Your task to perform on an android device: search for starred emails in the gmail app Image 0: 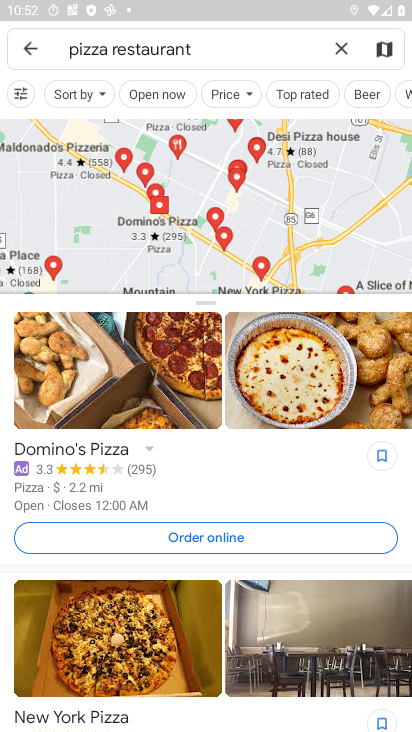
Step 0: press home button
Your task to perform on an android device: search for starred emails in the gmail app Image 1: 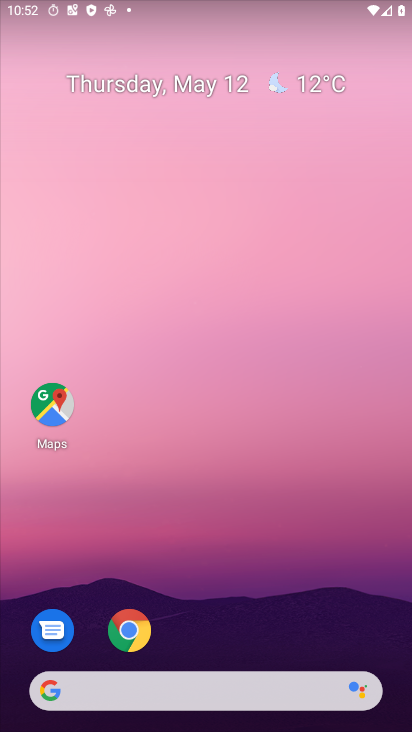
Step 1: drag from (204, 689) to (226, 190)
Your task to perform on an android device: search for starred emails in the gmail app Image 2: 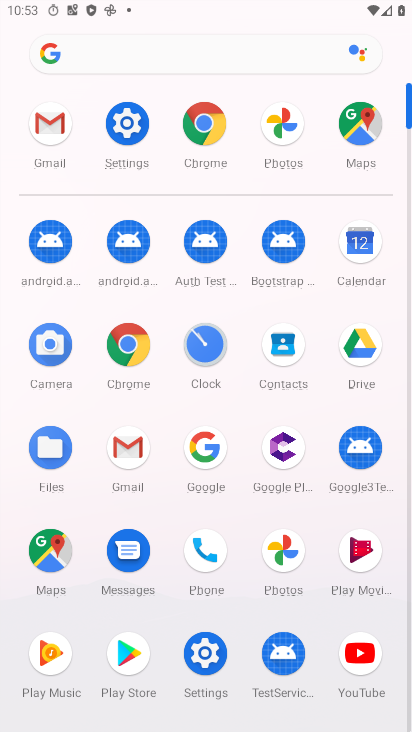
Step 2: click (125, 444)
Your task to perform on an android device: search for starred emails in the gmail app Image 3: 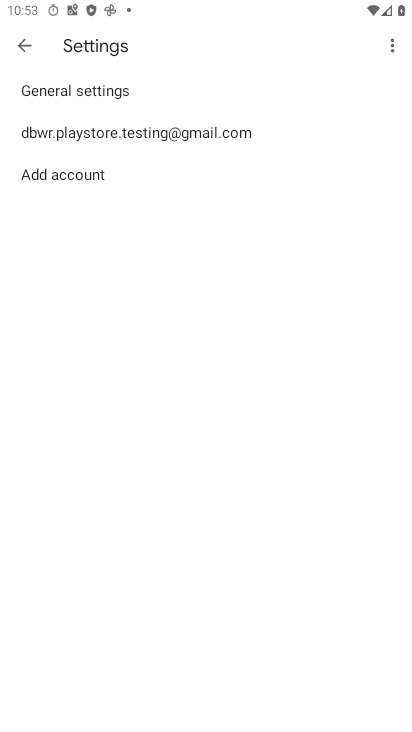
Step 3: click (30, 42)
Your task to perform on an android device: search for starred emails in the gmail app Image 4: 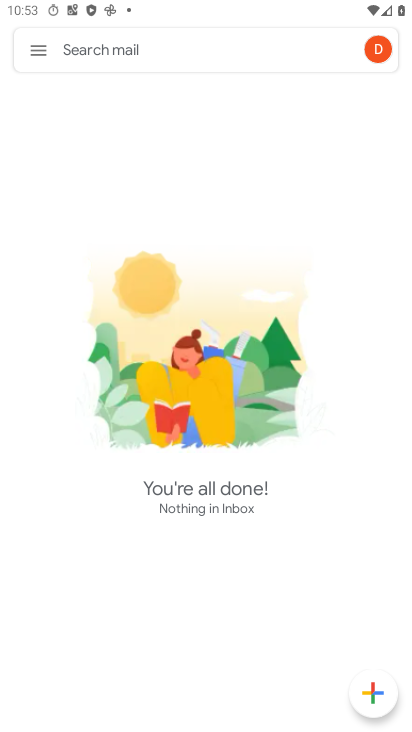
Step 4: click (35, 56)
Your task to perform on an android device: search for starred emails in the gmail app Image 5: 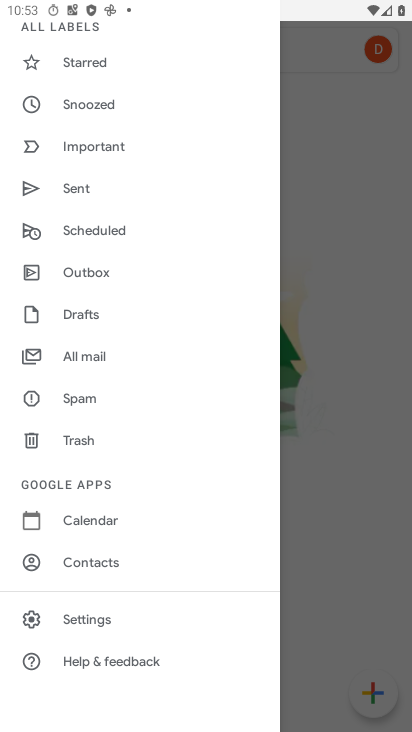
Step 5: click (90, 67)
Your task to perform on an android device: search for starred emails in the gmail app Image 6: 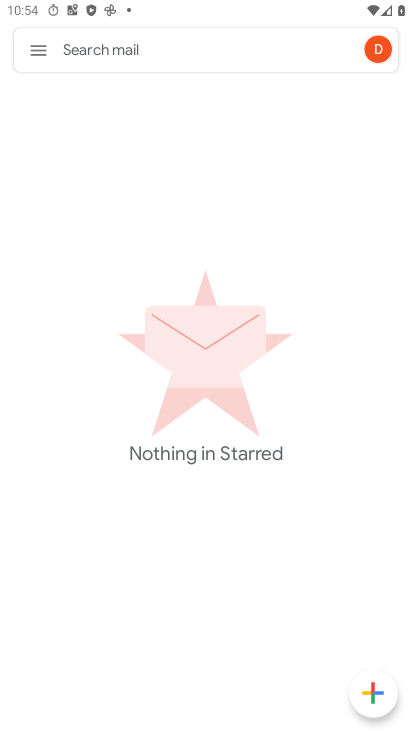
Step 6: task complete